Your task to perform on an android device: Go to location settings Image 0: 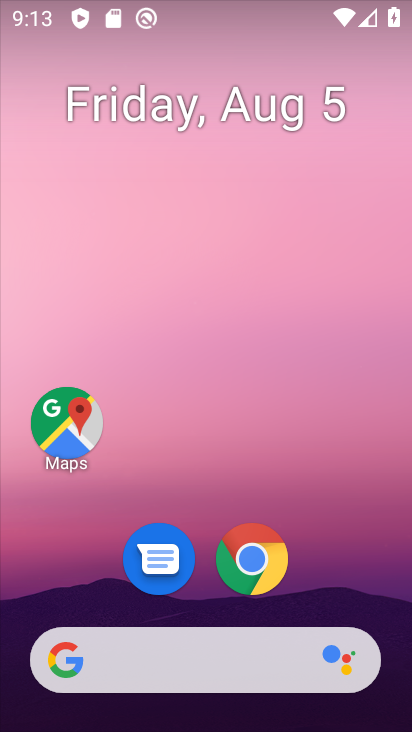
Step 0: click (75, 425)
Your task to perform on an android device: Go to location settings Image 1: 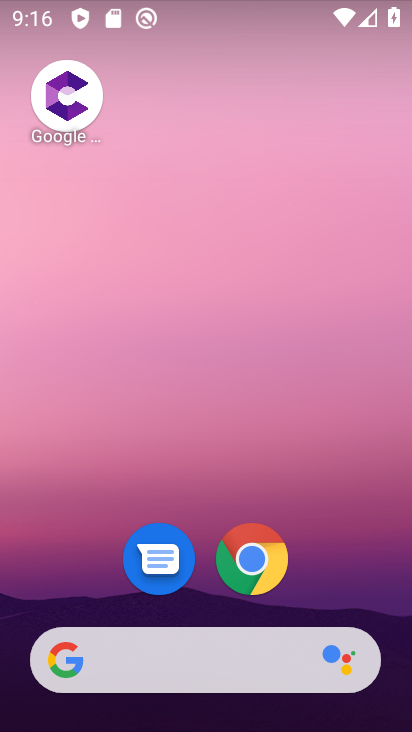
Step 1: drag from (334, 591) to (403, 348)
Your task to perform on an android device: Go to location settings Image 2: 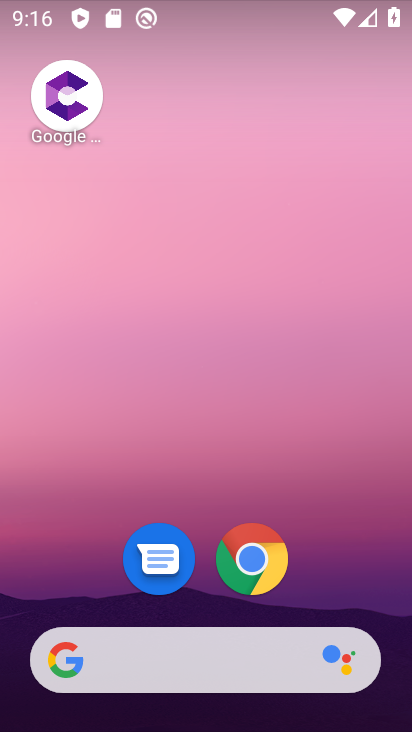
Step 2: drag from (187, 456) to (215, 121)
Your task to perform on an android device: Go to location settings Image 3: 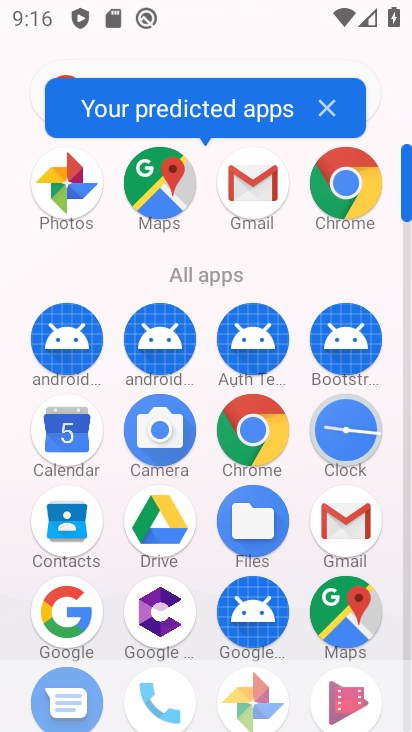
Step 3: drag from (266, 535) to (296, 220)
Your task to perform on an android device: Go to location settings Image 4: 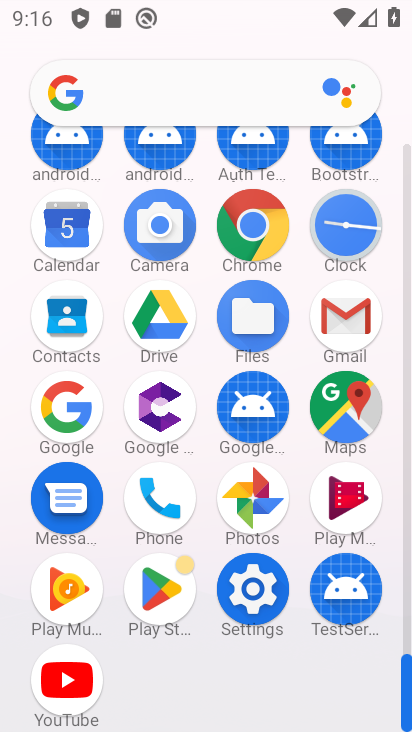
Step 4: click (245, 584)
Your task to perform on an android device: Go to location settings Image 5: 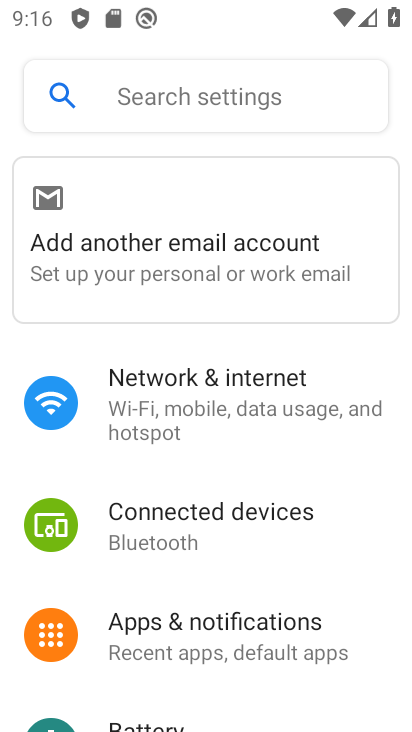
Step 5: drag from (252, 534) to (285, 172)
Your task to perform on an android device: Go to location settings Image 6: 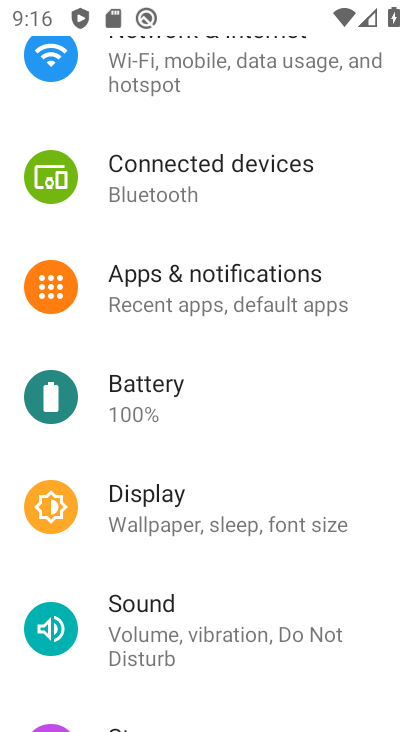
Step 6: drag from (274, 511) to (304, 189)
Your task to perform on an android device: Go to location settings Image 7: 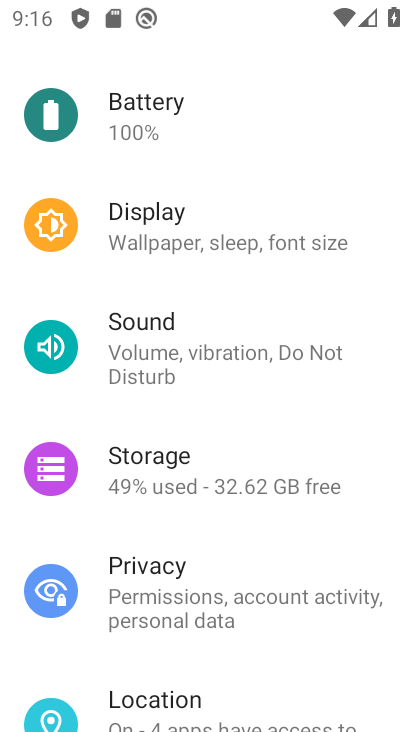
Step 7: drag from (320, 582) to (320, 273)
Your task to perform on an android device: Go to location settings Image 8: 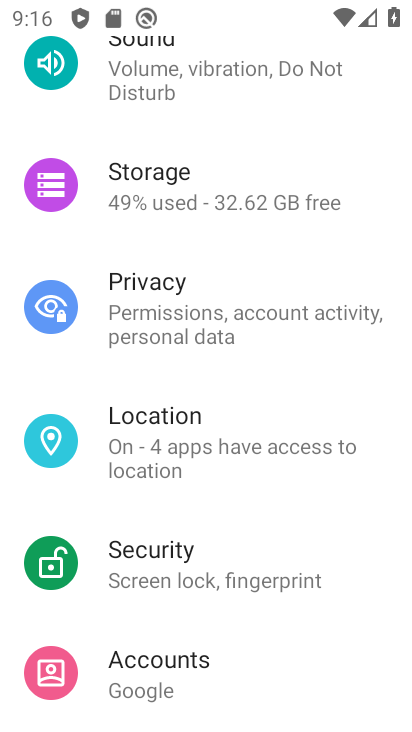
Step 8: click (283, 442)
Your task to perform on an android device: Go to location settings Image 9: 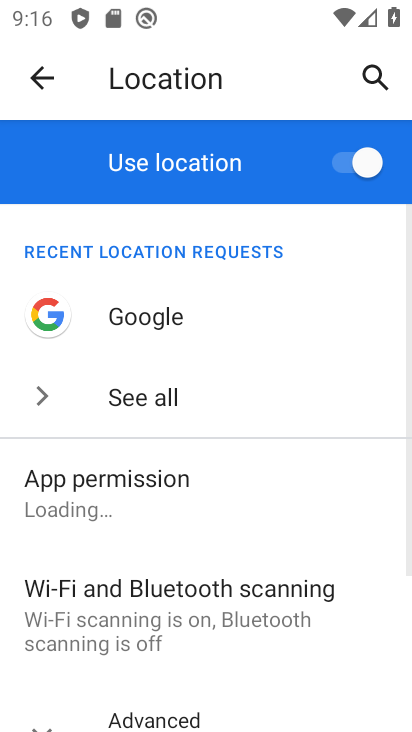
Step 9: task complete